Your task to perform on an android device: add a contact Image 0: 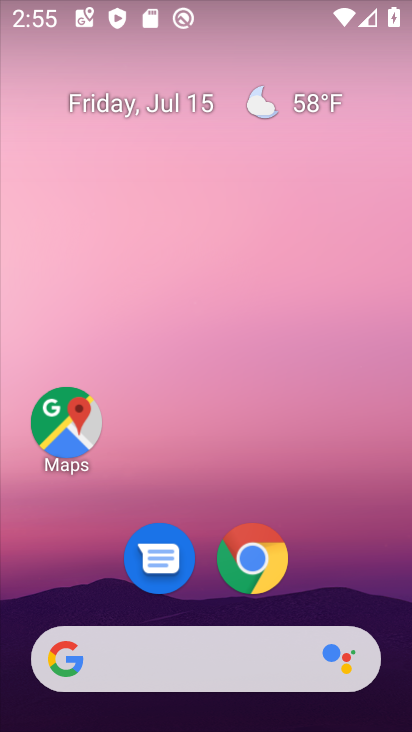
Step 0: drag from (375, 571) to (388, 56)
Your task to perform on an android device: add a contact Image 1: 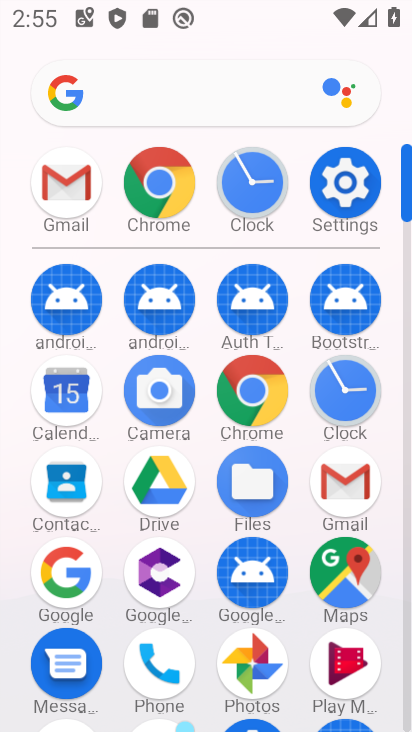
Step 1: click (75, 474)
Your task to perform on an android device: add a contact Image 2: 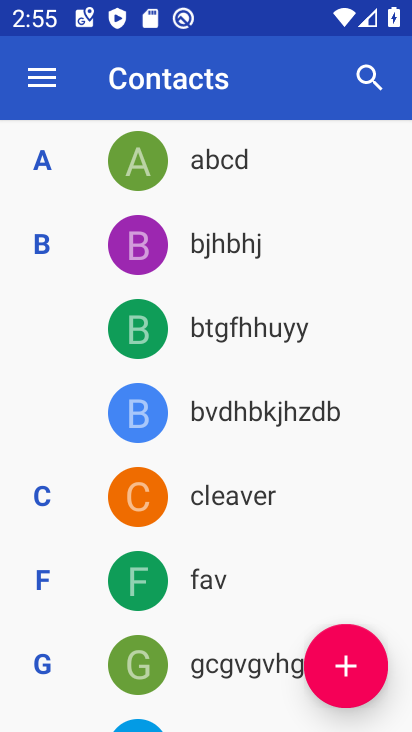
Step 2: click (350, 662)
Your task to perform on an android device: add a contact Image 3: 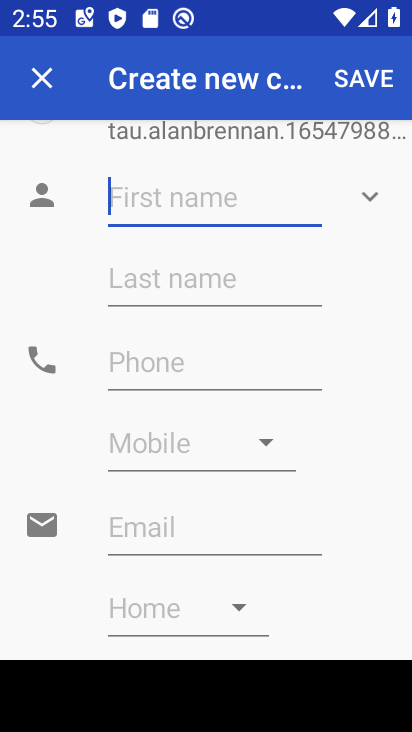
Step 3: type "lololo"
Your task to perform on an android device: add a contact Image 4: 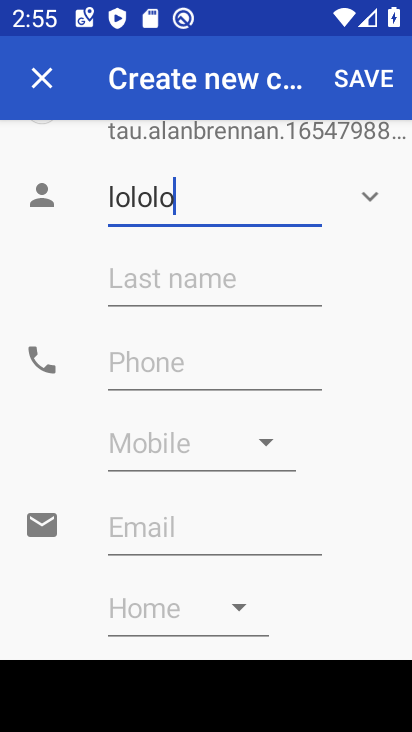
Step 4: click (321, 372)
Your task to perform on an android device: add a contact Image 5: 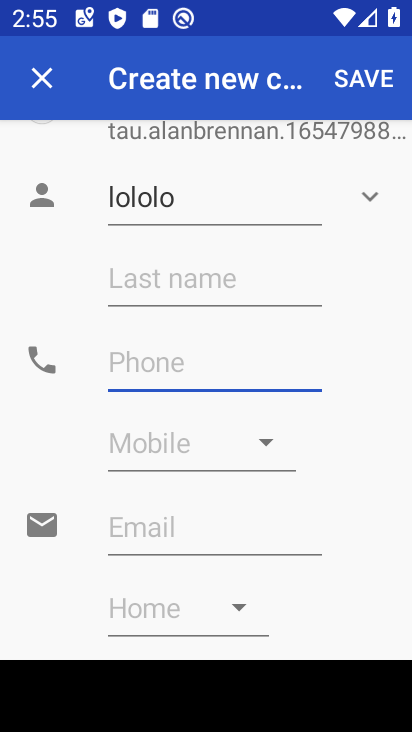
Step 5: type "1234567890"
Your task to perform on an android device: add a contact Image 6: 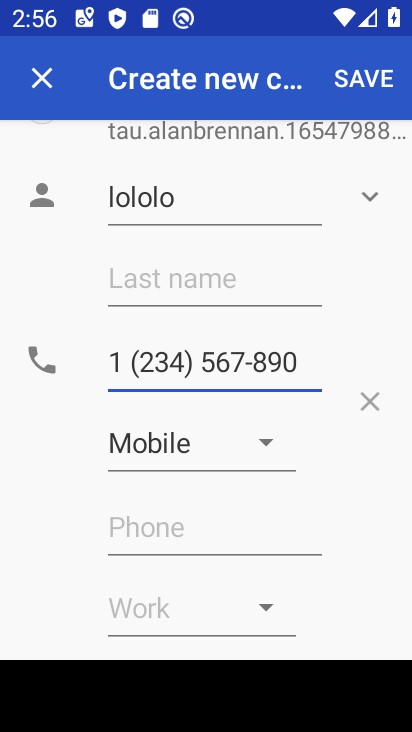
Step 6: click (373, 85)
Your task to perform on an android device: add a contact Image 7: 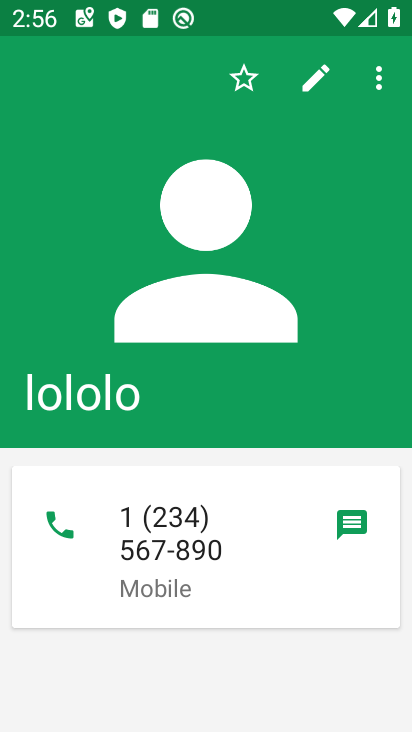
Step 7: task complete